Your task to perform on an android device: Play the last video I watched on Youtube Image 0: 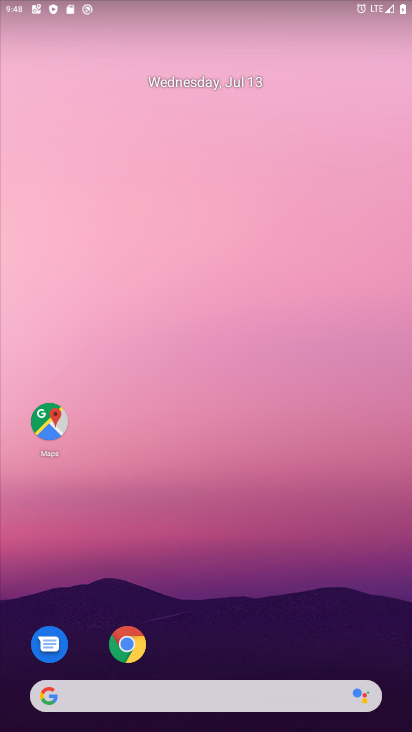
Step 0: drag from (227, 694) to (226, 241)
Your task to perform on an android device: Play the last video I watched on Youtube Image 1: 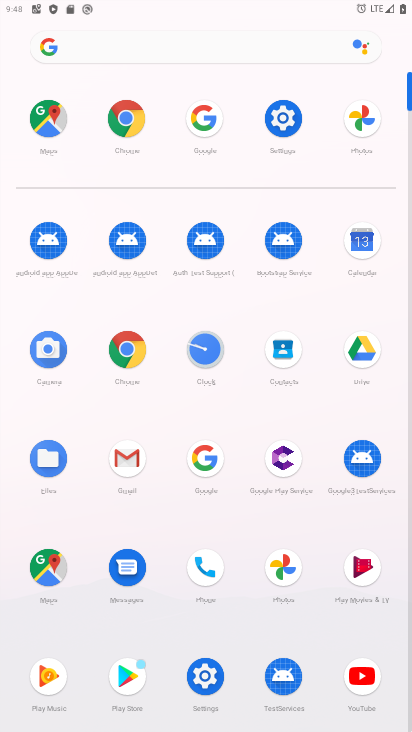
Step 1: click (367, 677)
Your task to perform on an android device: Play the last video I watched on Youtube Image 2: 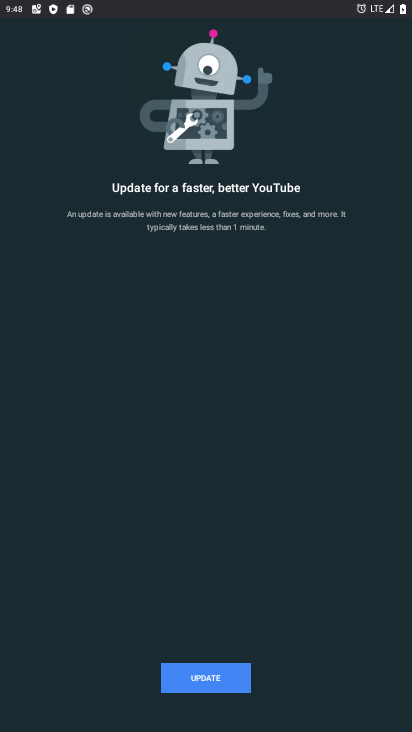
Step 2: task complete